Your task to perform on an android device: turn off picture-in-picture Image 0: 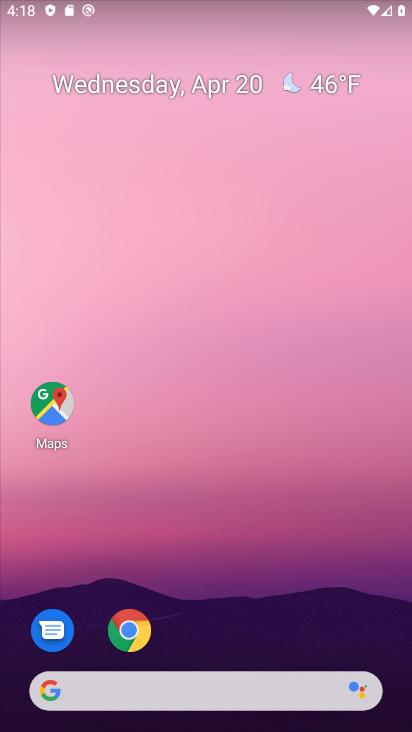
Step 0: click (133, 626)
Your task to perform on an android device: turn off picture-in-picture Image 1: 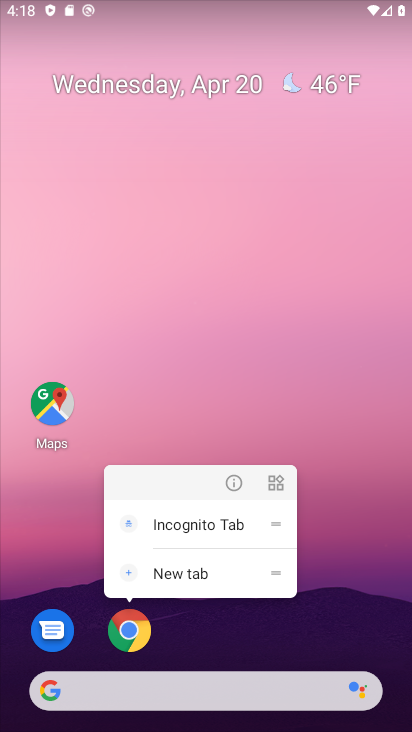
Step 1: click (231, 480)
Your task to perform on an android device: turn off picture-in-picture Image 2: 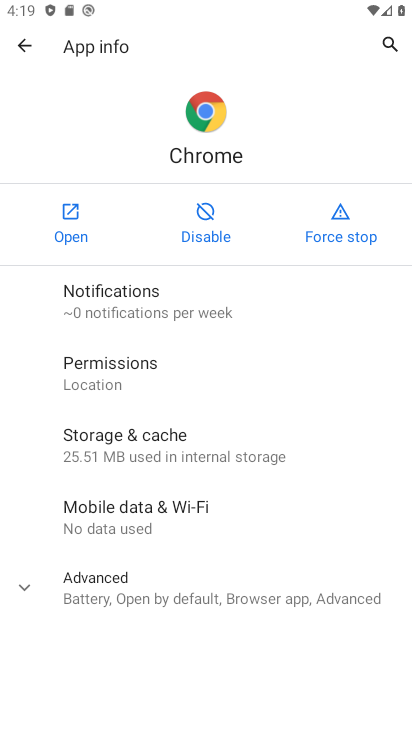
Step 2: click (139, 583)
Your task to perform on an android device: turn off picture-in-picture Image 3: 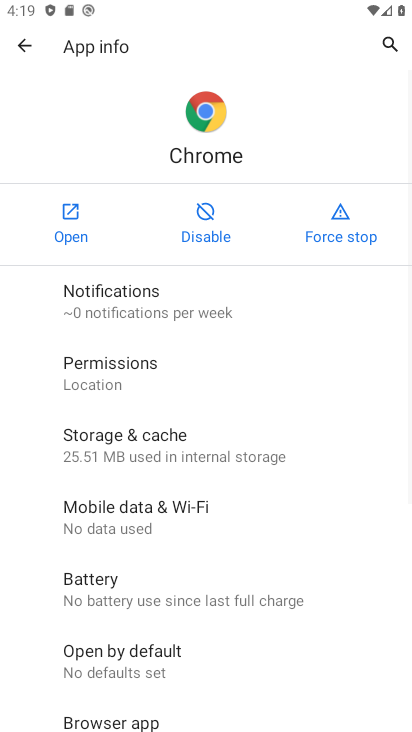
Step 3: drag from (157, 704) to (199, 335)
Your task to perform on an android device: turn off picture-in-picture Image 4: 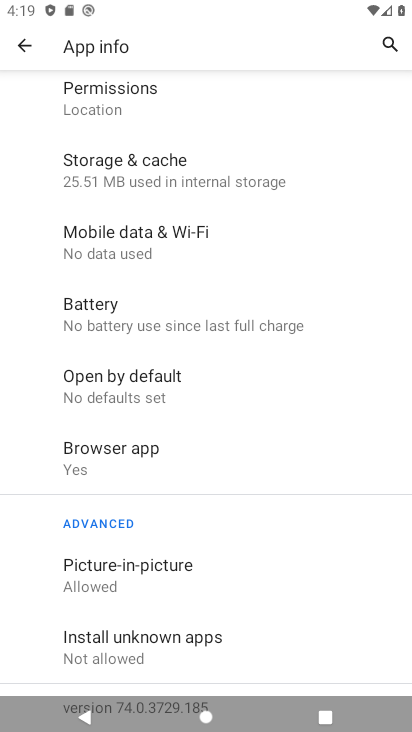
Step 4: click (123, 583)
Your task to perform on an android device: turn off picture-in-picture Image 5: 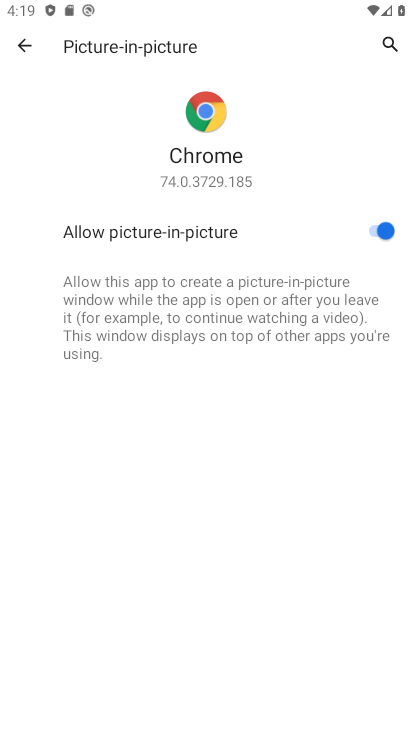
Step 5: click (374, 230)
Your task to perform on an android device: turn off picture-in-picture Image 6: 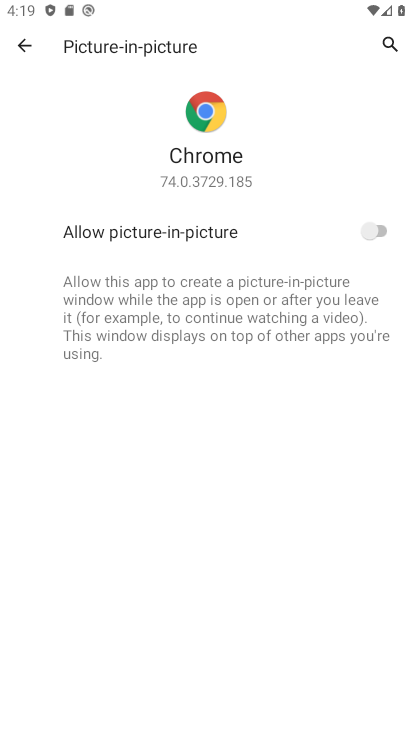
Step 6: task complete